Your task to perform on an android device: check google app version Image 0: 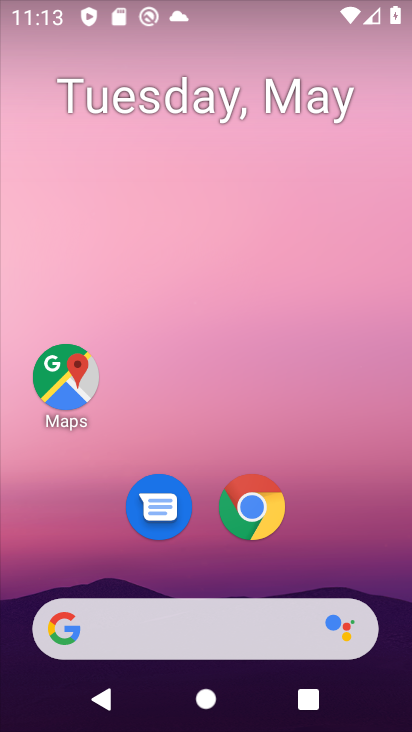
Step 0: drag from (253, 664) to (100, 19)
Your task to perform on an android device: check google app version Image 1: 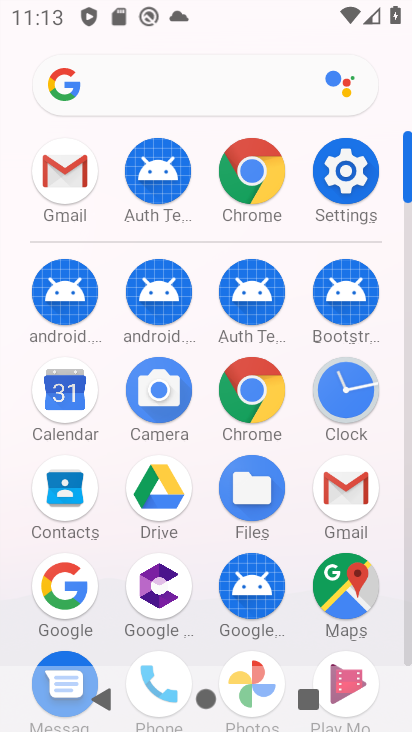
Step 1: click (64, 596)
Your task to perform on an android device: check google app version Image 2: 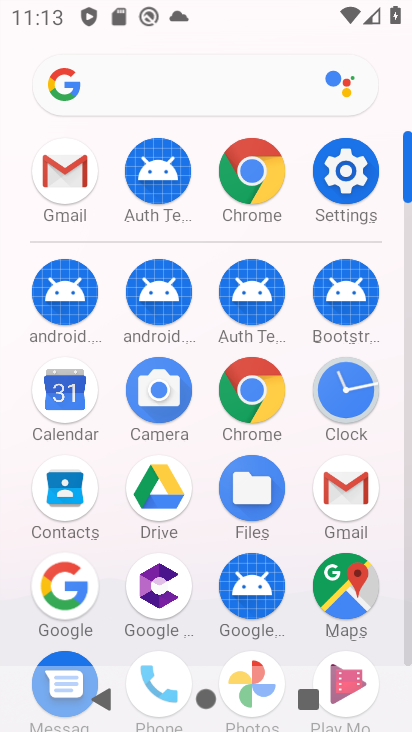
Step 2: click (64, 595)
Your task to perform on an android device: check google app version Image 3: 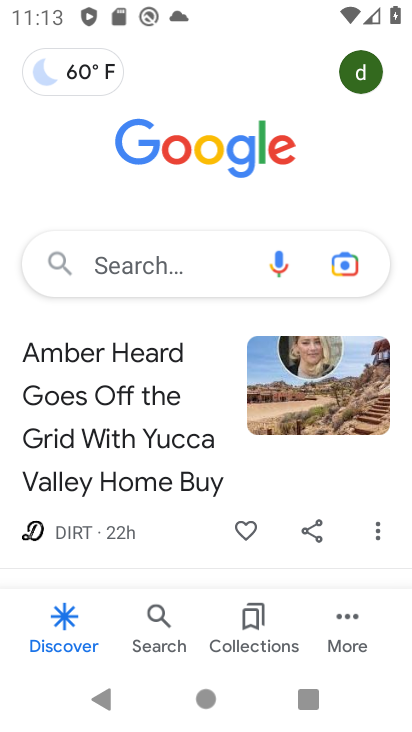
Step 3: click (350, 624)
Your task to perform on an android device: check google app version Image 4: 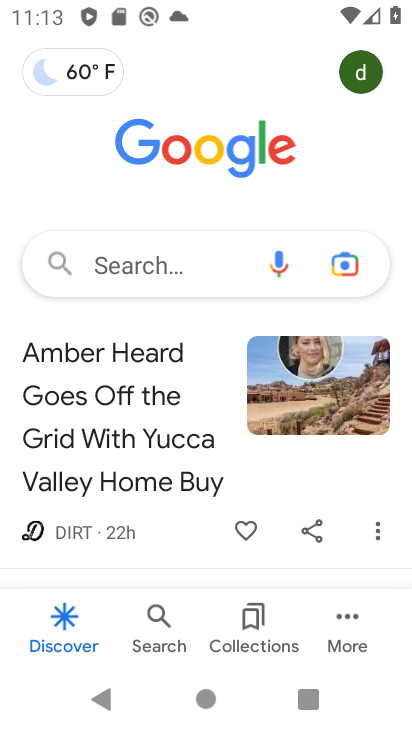
Step 4: click (351, 625)
Your task to perform on an android device: check google app version Image 5: 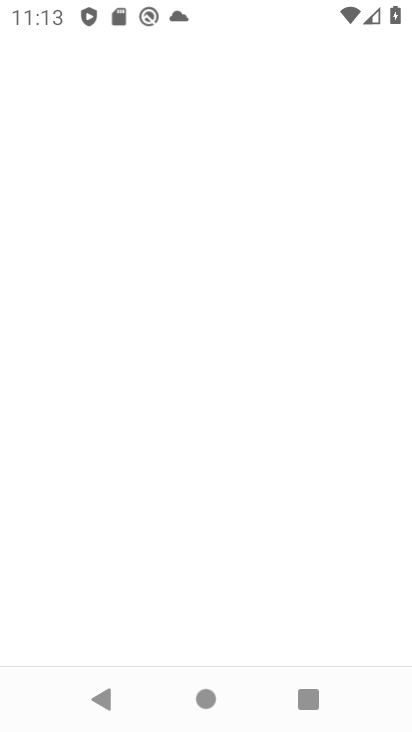
Step 5: click (352, 623)
Your task to perform on an android device: check google app version Image 6: 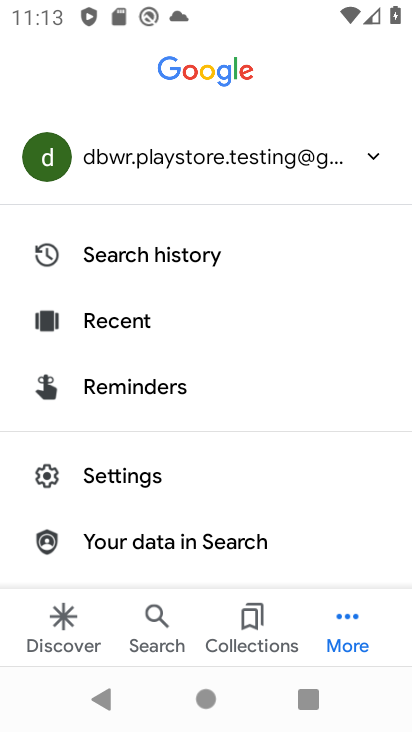
Step 6: click (119, 468)
Your task to perform on an android device: check google app version Image 7: 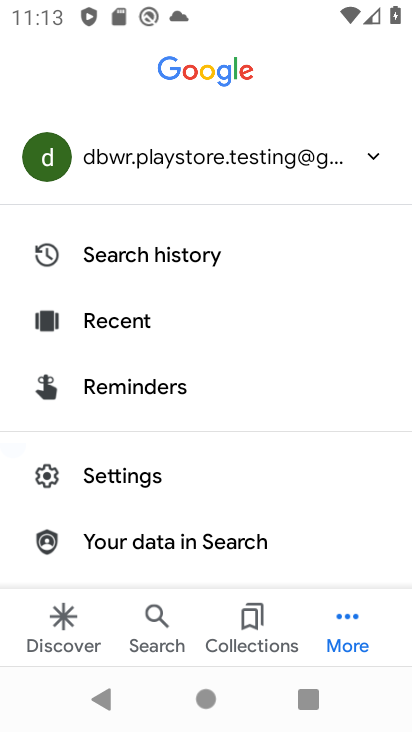
Step 7: click (122, 474)
Your task to perform on an android device: check google app version Image 8: 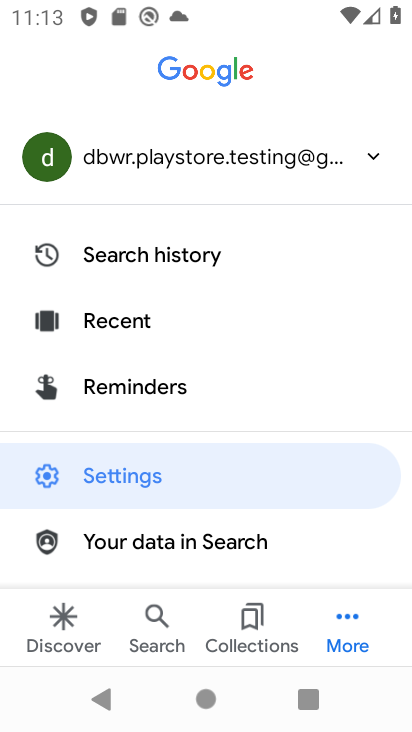
Step 8: click (124, 471)
Your task to perform on an android device: check google app version Image 9: 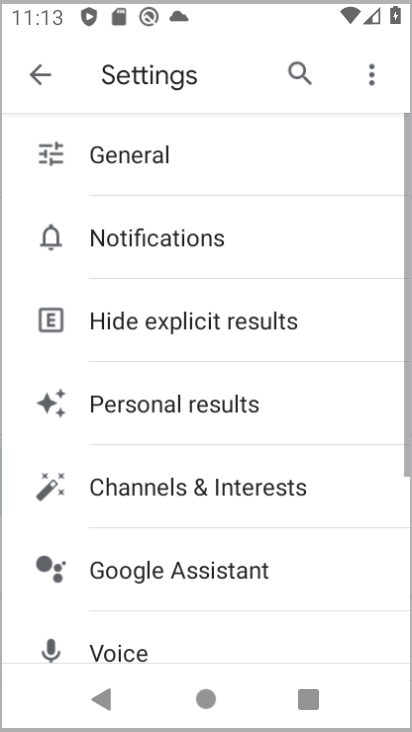
Step 9: click (122, 469)
Your task to perform on an android device: check google app version Image 10: 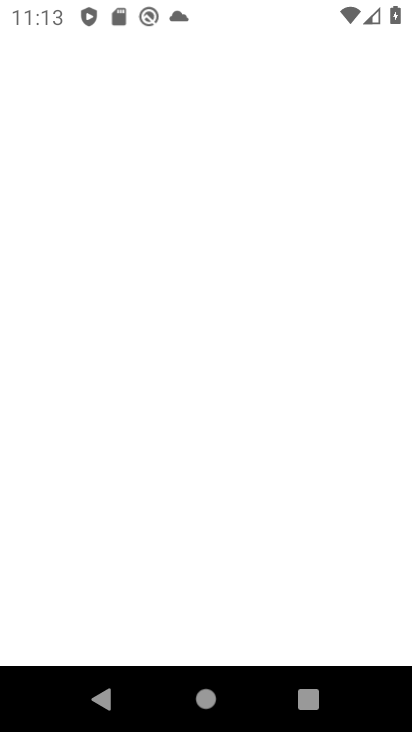
Step 10: press back button
Your task to perform on an android device: check google app version Image 11: 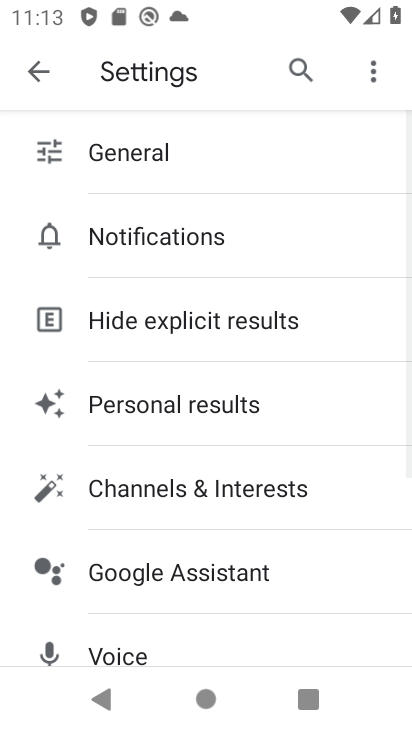
Step 11: drag from (140, 502) to (134, 124)
Your task to perform on an android device: check google app version Image 12: 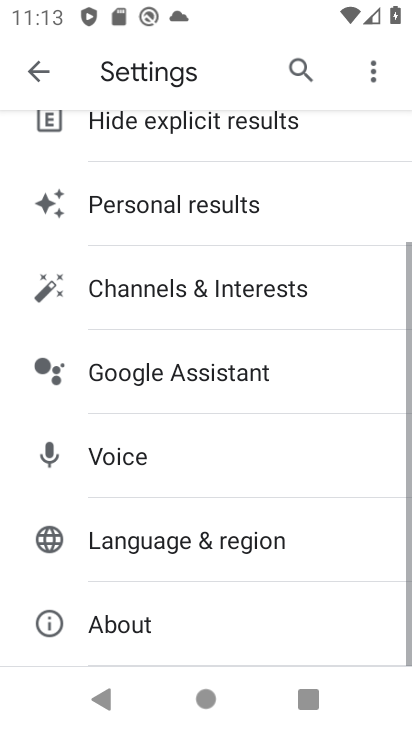
Step 12: drag from (165, 411) to (150, 207)
Your task to perform on an android device: check google app version Image 13: 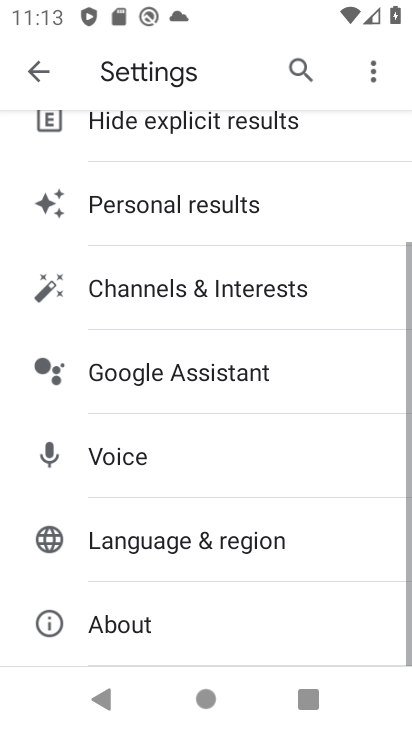
Step 13: click (120, 620)
Your task to perform on an android device: check google app version Image 14: 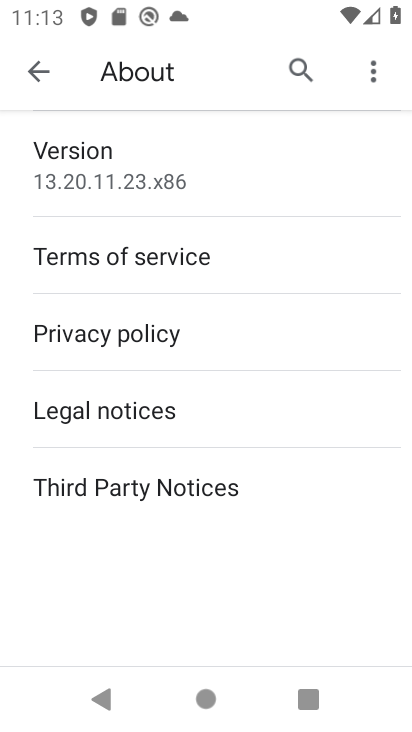
Step 14: task complete